Your task to perform on an android device: Open Google Chrome and open the bookmarks view Image 0: 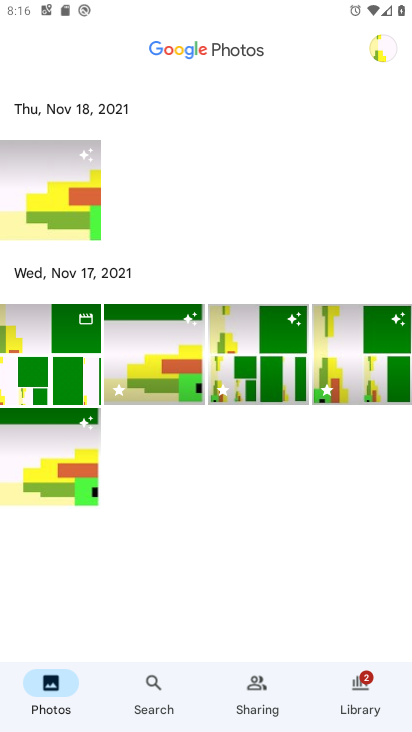
Step 0: press home button
Your task to perform on an android device: Open Google Chrome and open the bookmarks view Image 1: 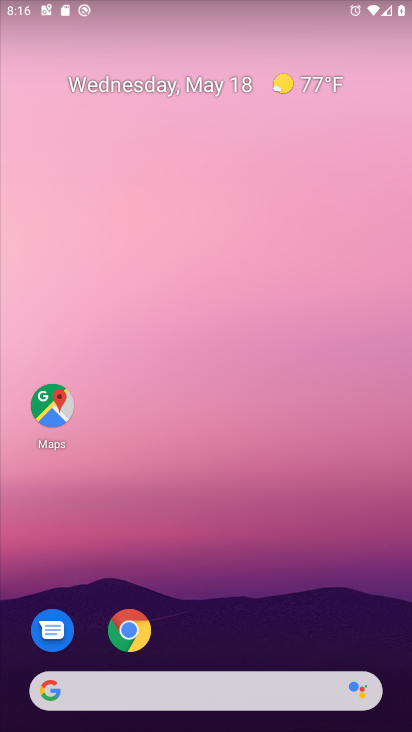
Step 1: click (132, 636)
Your task to perform on an android device: Open Google Chrome and open the bookmarks view Image 2: 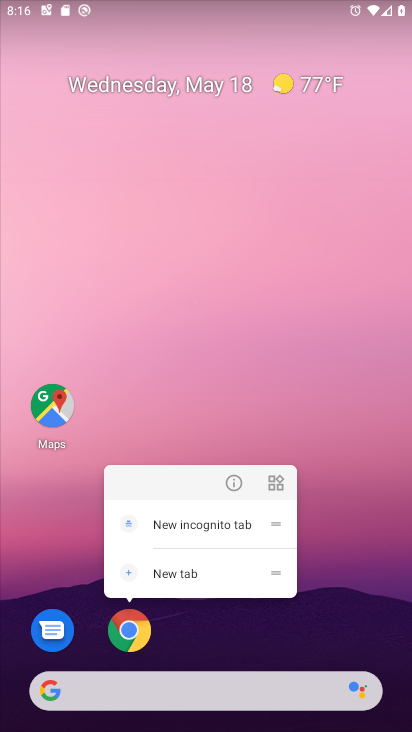
Step 2: click (132, 636)
Your task to perform on an android device: Open Google Chrome and open the bookmarks view Image 3: 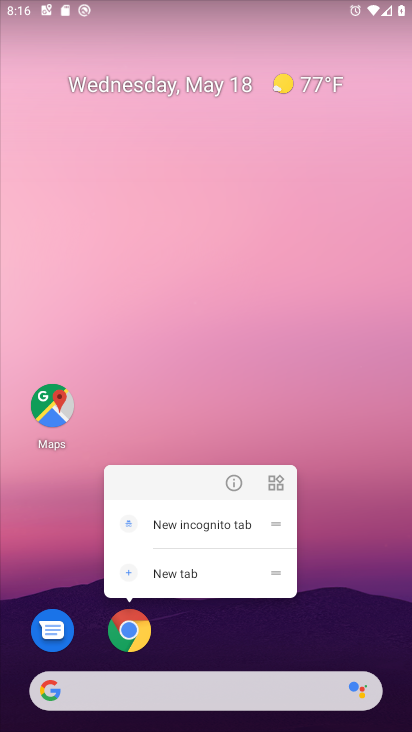
Step 3: click (133, 644)
Your task to perform on an android device: Open Google Chrome and open the bookmarks view Image 4: 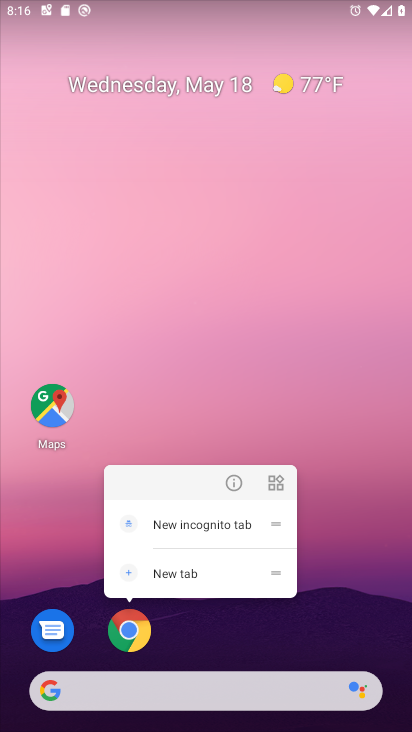
Step 4: click (118, 639)
Your task to perform on an android device: Open Google Chrome and open the bookmarks view Image 5: 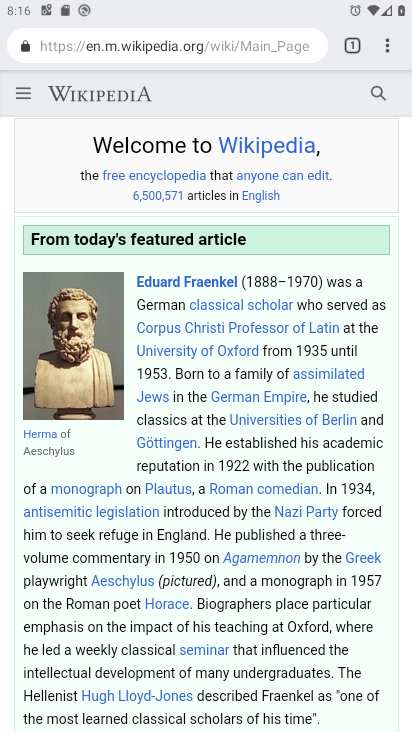
Step 5: task complete